Your task to perform on an android device: Show me productivity apps on the Play Store Image 0: 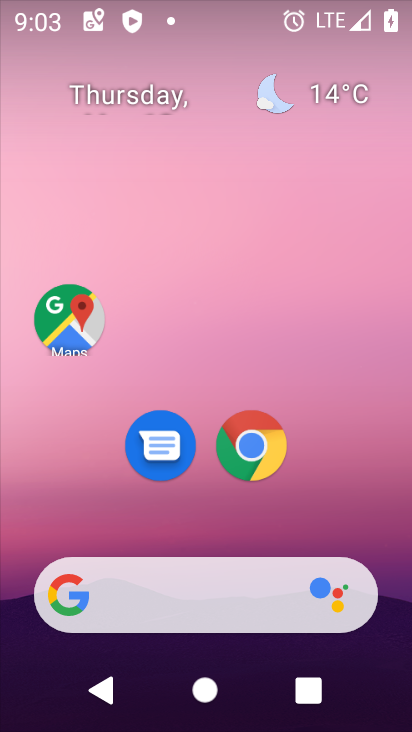
Step 0: drag from (226, 718) to (231, 156)
Your task to perform on an android device: Show me productivity apps on the Play Store Image 1: 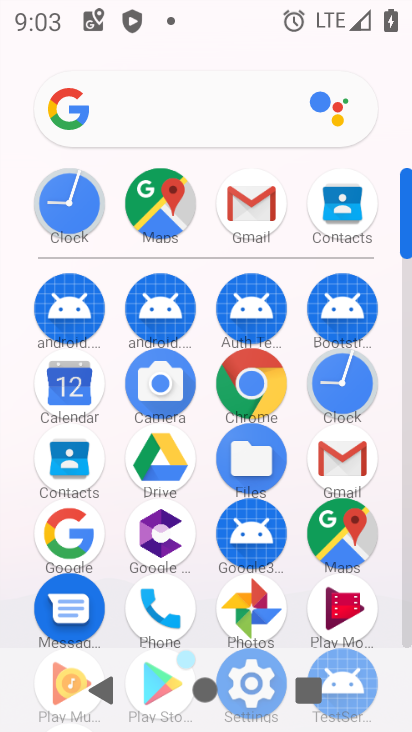
Step 1: drag from (16, 596) to (39, 216)
Your task to perform on an android device: Show me productivity apps on the Play Store Image 2: 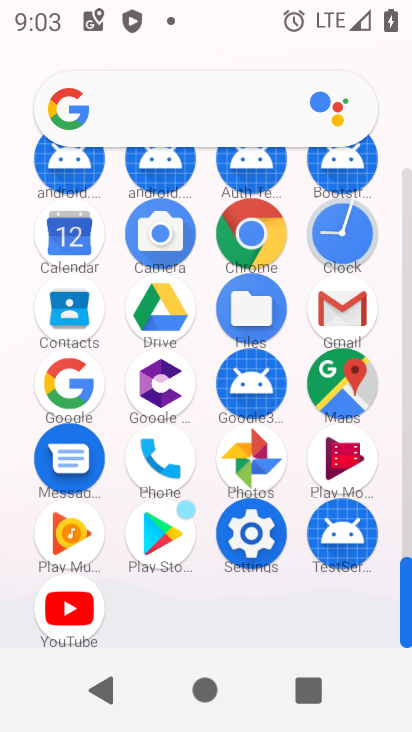
Step 2: click (179, 541)
Your task to perform on an android device: Show me productivity apps on the Play Store Image 3: 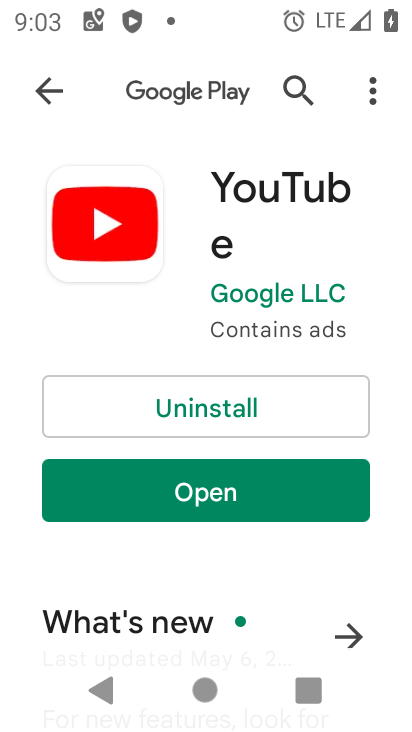
Step 3: click (49, 84)
Your task to perform on an android device: Show me productivity apps on the Play Store Image 4: 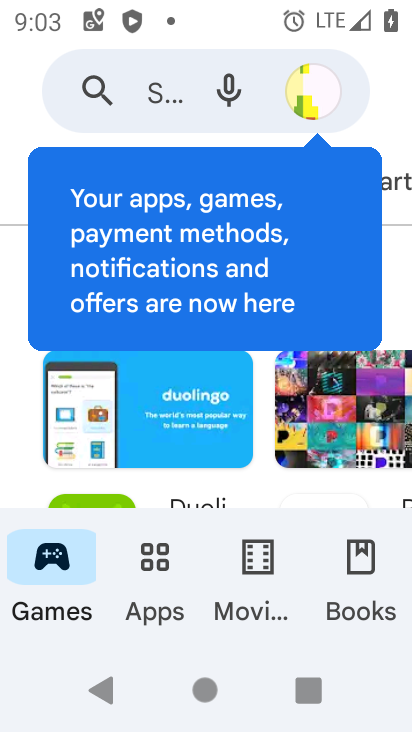
Step 4: click (154, 581)
Your task to perform on an android device: Show me productivity apps on the Play Store Image 5: 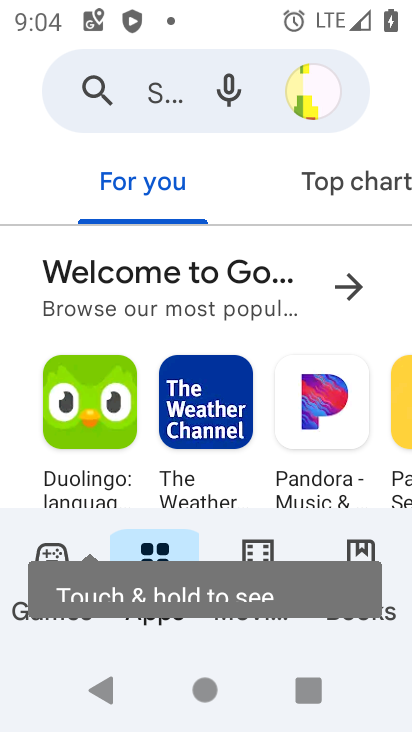
Step 5: drag from (356, 174) to (109, 169)
Your task to perform on an android device: Show me productivity apps on the Play Store Image 6: 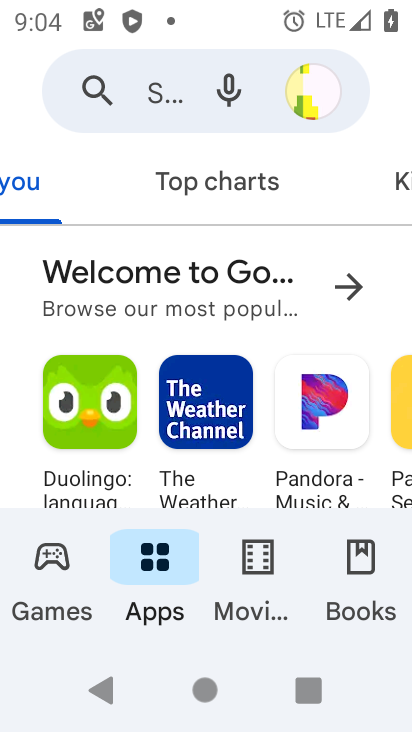
Step 6: drag from (379, 186) to (52, 181)
Your task to perform on an android device: Show me productivity apps on the Play Store Image 7: 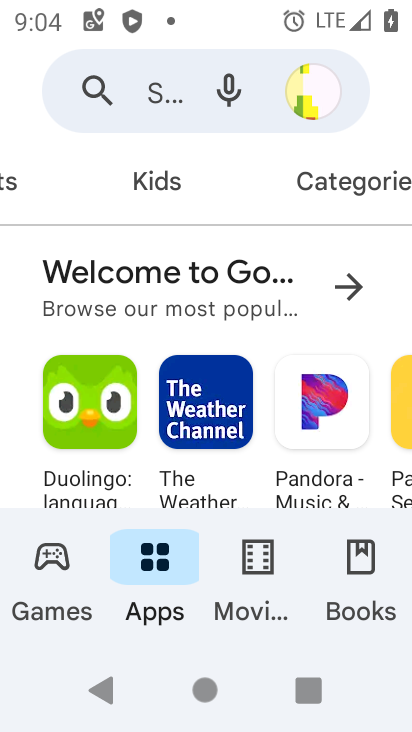
Step 7: drag from (348, 178) to (225, 191)
Your task to perform on an android device: Show me productivity apps on the Play Store Image 8: 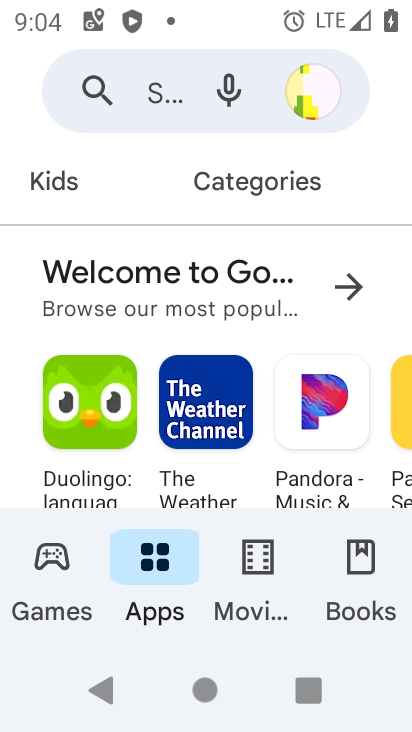
Step 8: click (266, 179)
Your task to perform on an android device: Show me productivity apps on the Play Store Image 9: 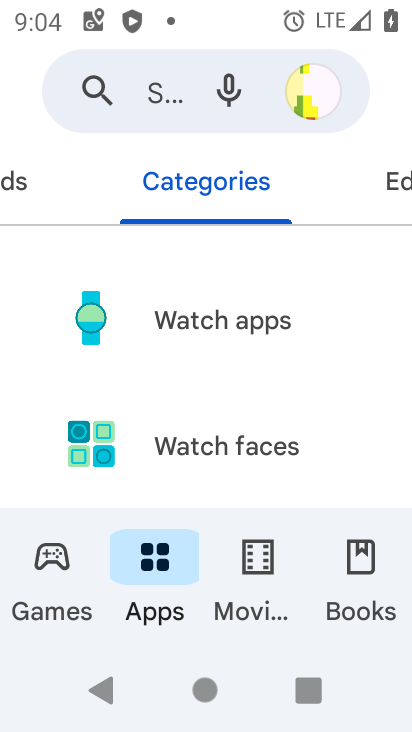
Step 9: drag from (256, 472) to (258, 215)
Your task to perform on an android device: Show me productivity apps on the Play Store Image 10: 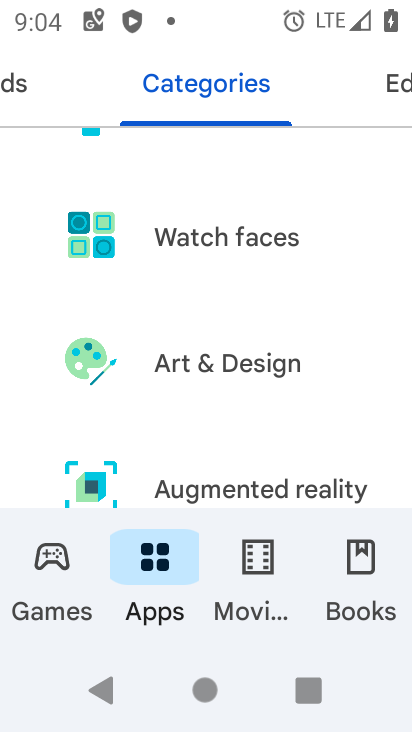
Step 10: drag from (254, 466) to (258, 171)
Your task to perform on an android device: Show me productivity apps on the Play Store Image 11: 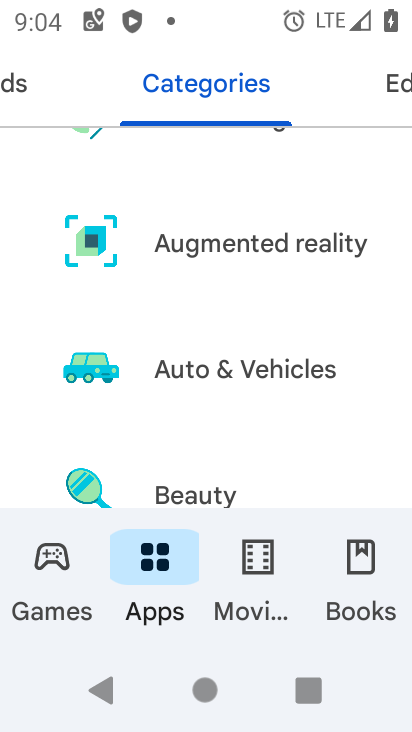
Step 11: drag from (256, 480) to (262, 199)
Your task to perform on an android device: Show me productivity apps on the Play Store Image 12: 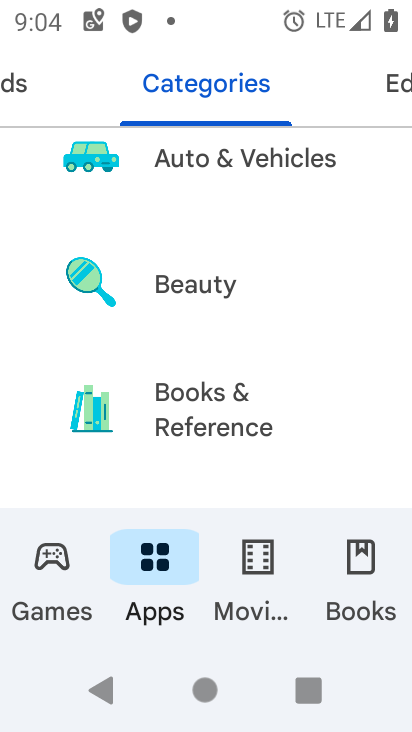
Step 12: drag from (256, 469) to (266, 208)
Your task to perform on an android device: Show me productivity apps on the Play Store Image 13: 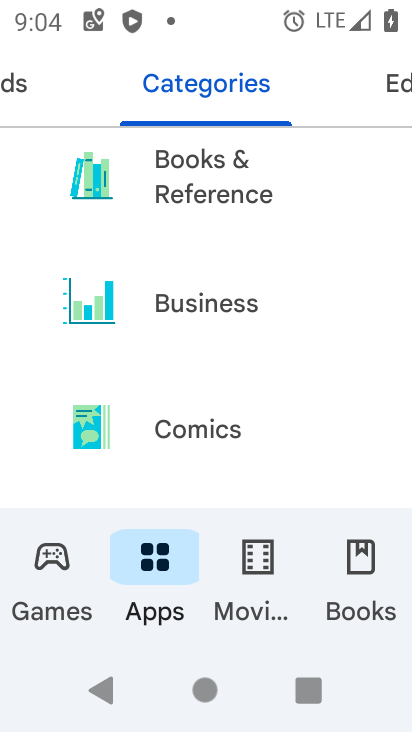
Step 13: drag from (280, 478) to (271, 217)
Your task to perform on an android device: Show me productivity apps on the Play Store Image 14: 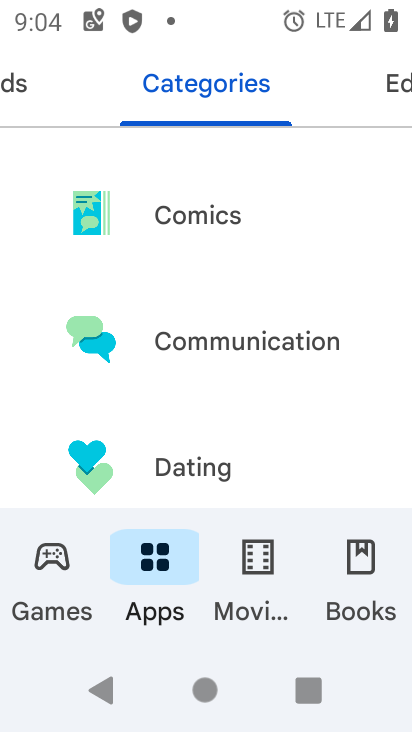
Step 14: drag from (246, 480) to (258, 180)
Your task to perform on an android device: Show me productivity apps on the Play Store Image 15: 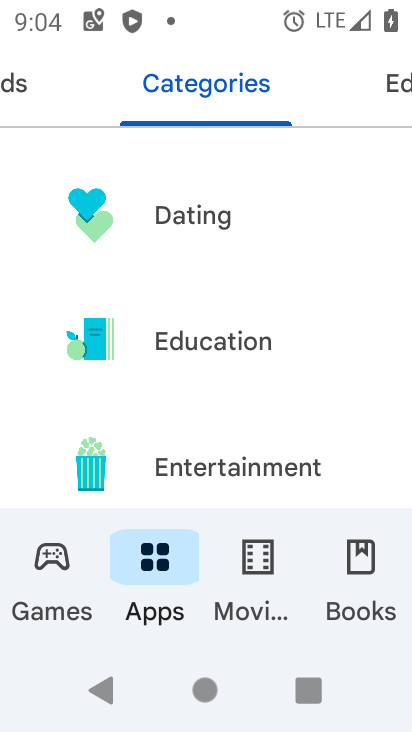
Step 15: drag from (248, 451) to (252, 138)
Your task to perform on an android device: Show me productivity apps on the Play Store Image 16: 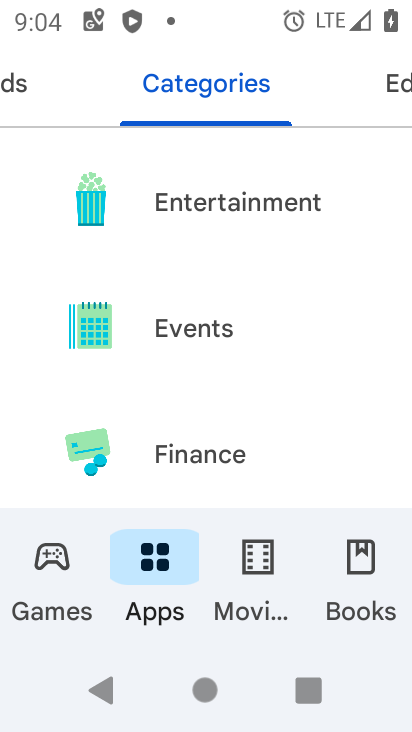
Step 16: drag from (247, 473) to (249, 157)
Your task to perform on an android device: Show me productivity apps on the Play Store Image 17: 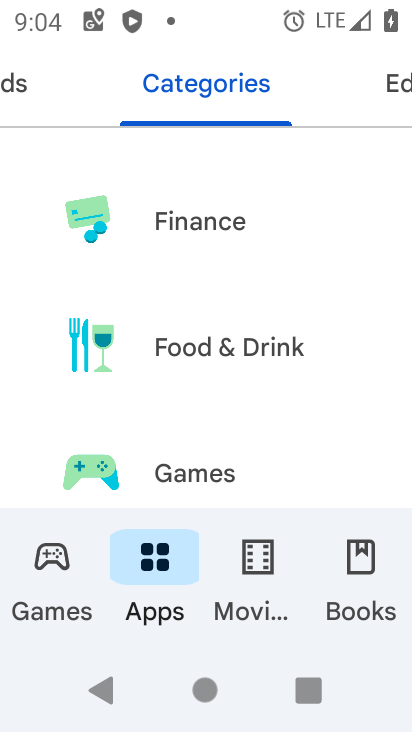
Step 17: drag from (226, 462) to (244, 165)
Your task to perform on an android device: Show me productivity apps on the Play Store Image 18: 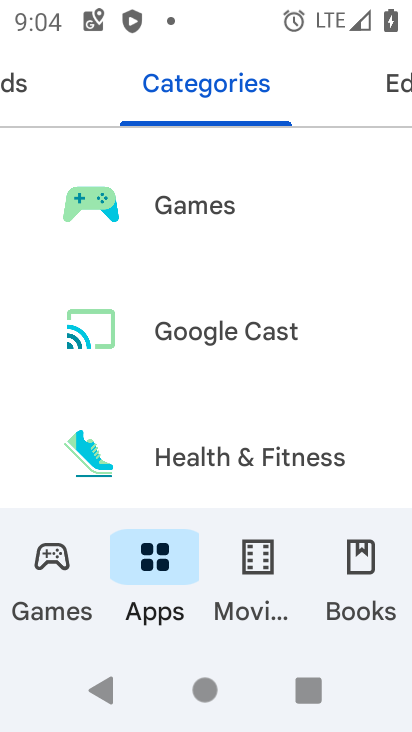
Step 18: drag from (238, 470) to (245, 143)
Your task to perform on an android device: Show me productivity apps on the Play Store Image 19: 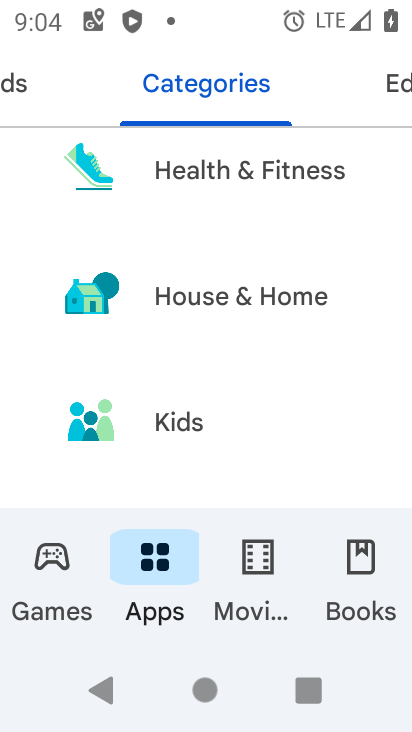
Step 19: drag from (272, 465) to (256, 147)
Your task to perform on an android device: Show me productivity apps on the Play Store Image 20: 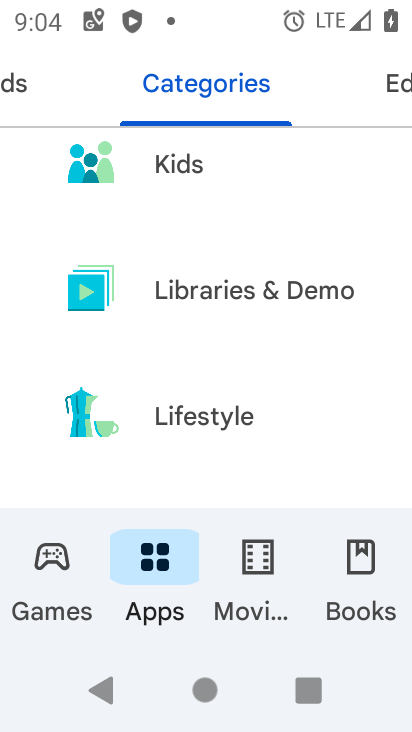
Step 20: drag from (259, 470) to (262, 123)
Your task to perform on an android device: Show me productivity apps on the Play Store Image 21: 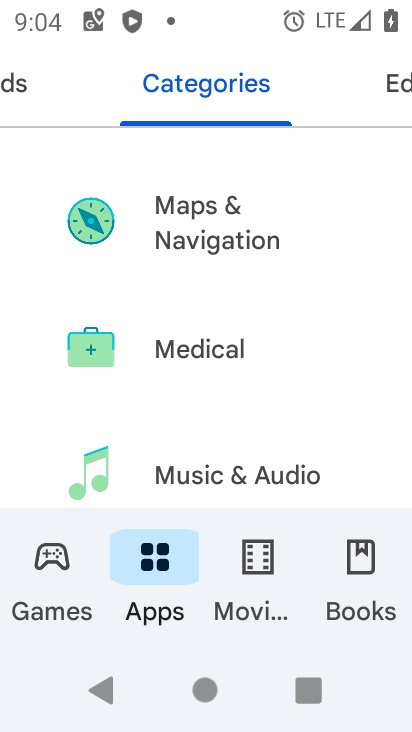
Step 21: drag from (244, 478) to (244, 155)
Your task to perform on an android device: Show me productivity apps on the Play Store Image 22: 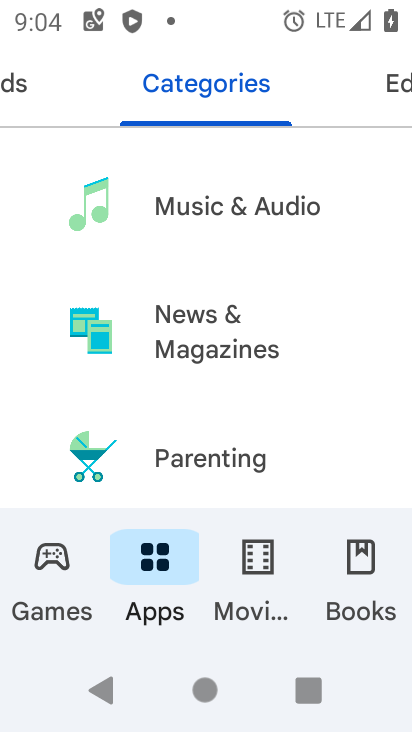
Step 22: drag from (233, 469) to (238, 172)
Your task to perform on an android device: Show me productivity apps on the Play Store Image 23: 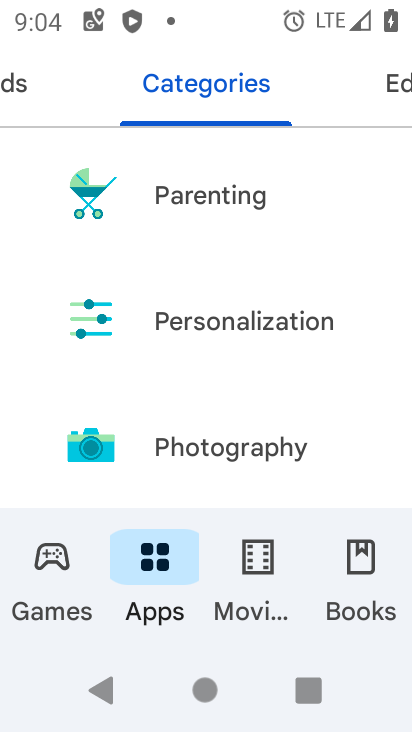
Step 23: drag from (243, 466) to (250, 191)
Your task to perform on an android device: Show me productivity apps on the Play Store Image 24: 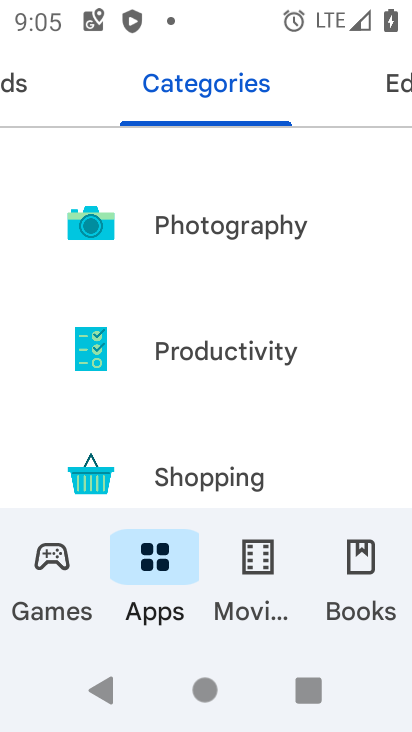
Step 24: click (214, 347)
Your task to perform on an android device: Show me productivity apps on the Play Store Image 25: 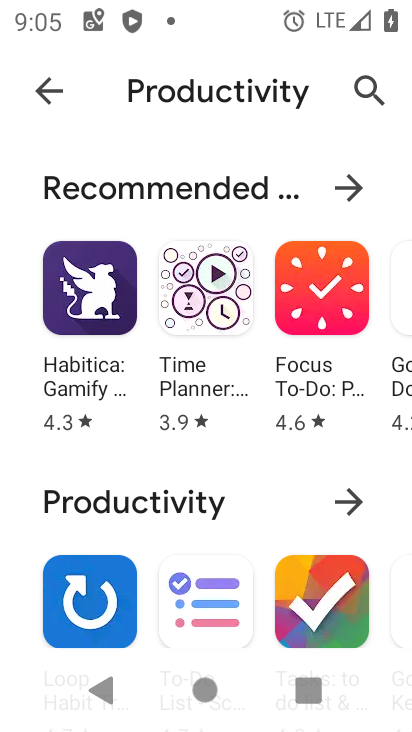
Step 25: task complete